Your task to perform on an android device: What's the weather today? Image 0: 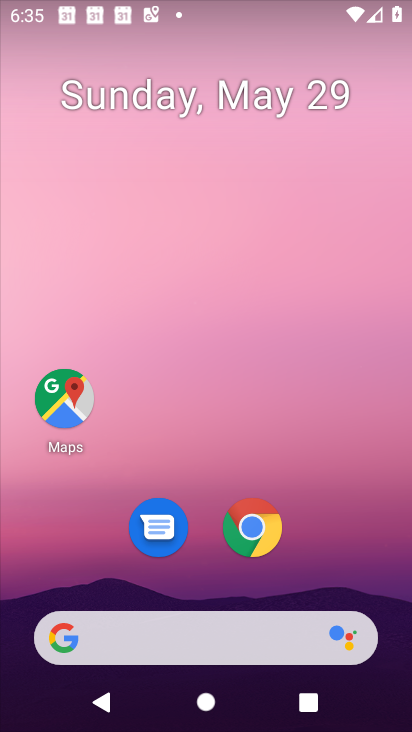
Step 0: drag from (377, 618) to (283, 84)
Your task to perform on an android device: What's the weather today? Image 1: 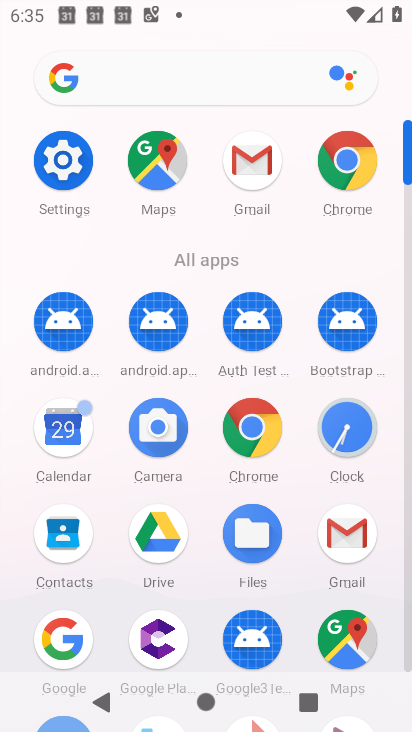
Step 1: click (68, 654)
Your task to perform on an android device: What's the weather today? Image 2: 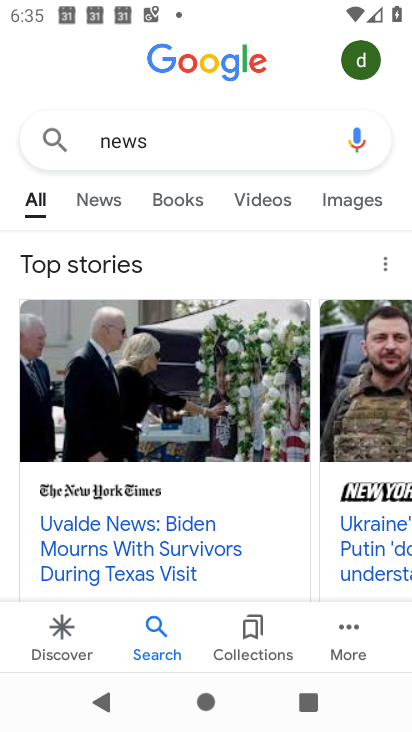
Step 2: press back button
Your task to perform on an android device: What's the weather today? Image 3: 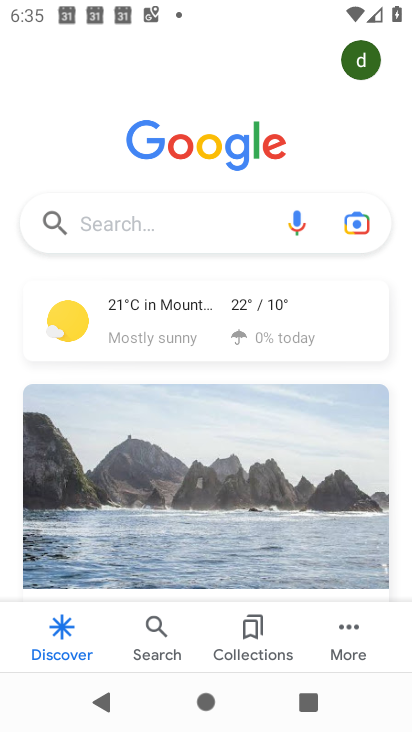
Step 3: click (170, 224)
Your task to perform on an android device: What's the weather today? Image 4: 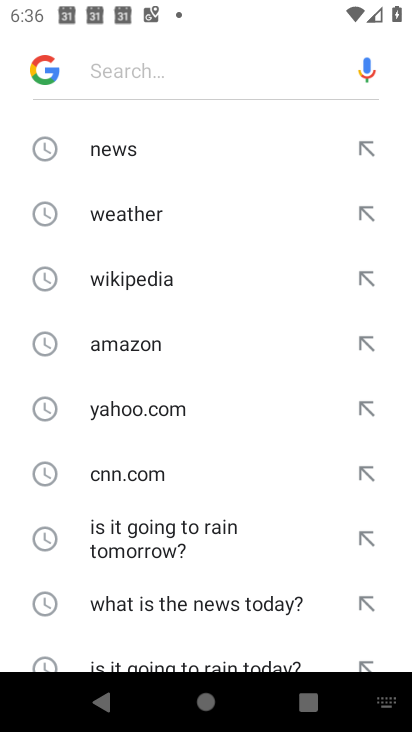
Step 4: drag from (177, 601) to (185, 311)
Your task to perform on an android device: What's the weather today? Image 5: 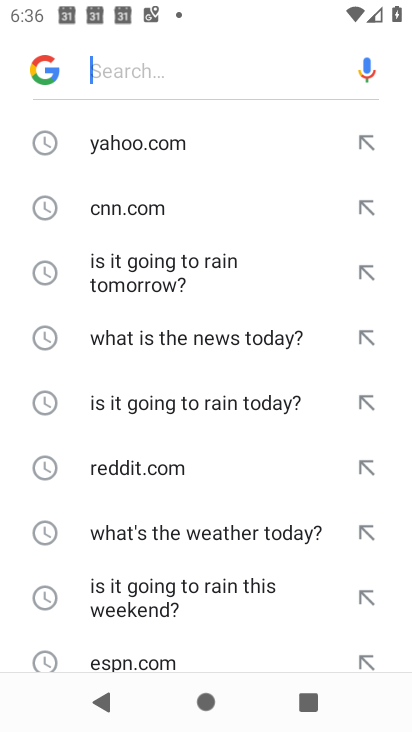
Step 5: click (216, 527)
Your task to perform on an android device: What's the weather today? Image 6: 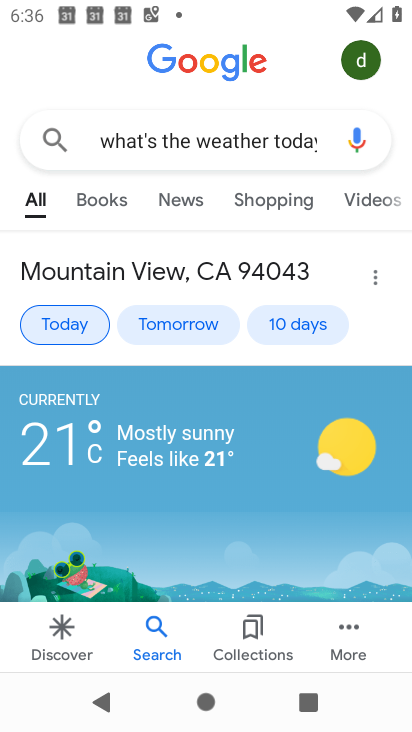
Step 6: task complete